Your task to perform on an android device: turn on sleep mode Image 0: 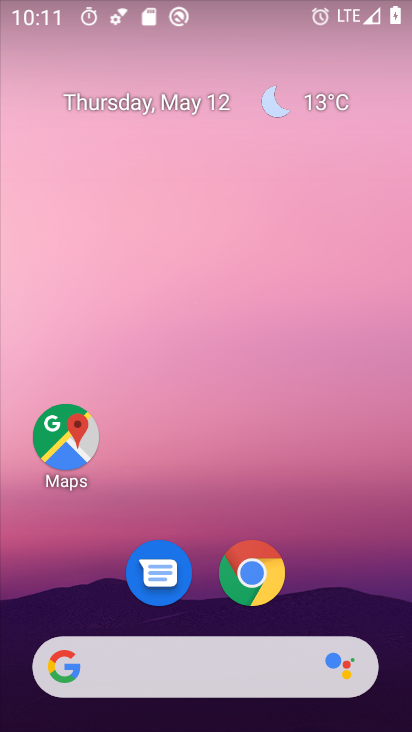
Step 0: drag from (401, 667) to (373, 249)
Your task to perform on an android device: turn on sleep mode Image 1: 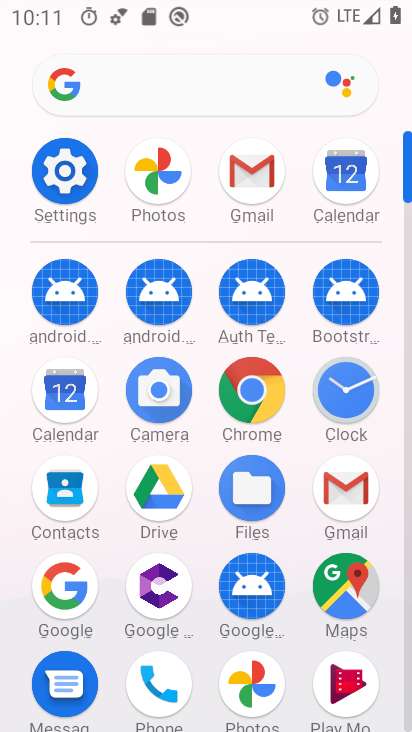
Step 1: click (45, 170)
Your task to perform on an android device: turn on sleep mode Image 2: 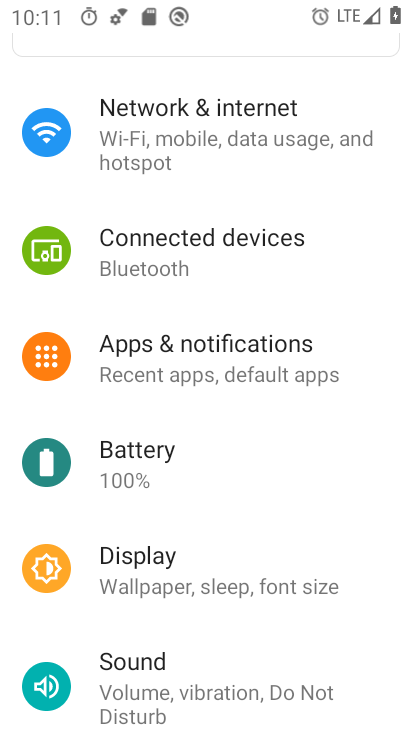
Step 2: click (141, 577)
Your task to perform on an android device: turn on sleep mode Image 3: 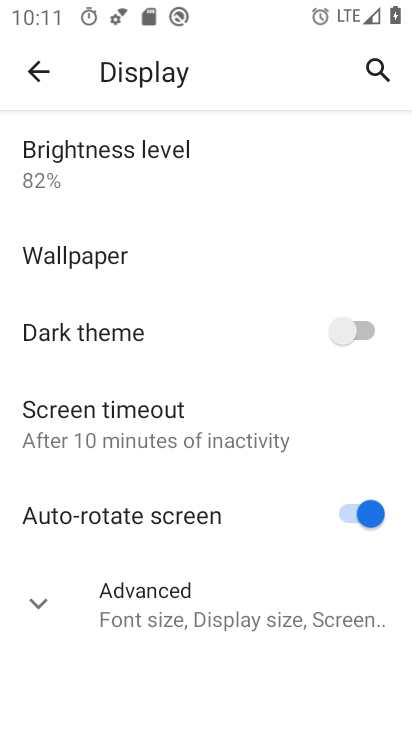
Step 3: click (111, 424)
Your task to perform on an android device: turn on sleep mode Image 4: 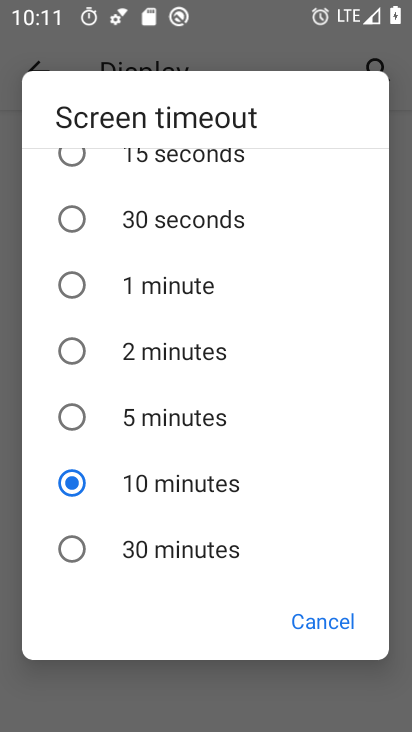
Step 4: task complete